Your task to perform on an android device: open app "The Home Depot" (install if not already installed) Image 0: 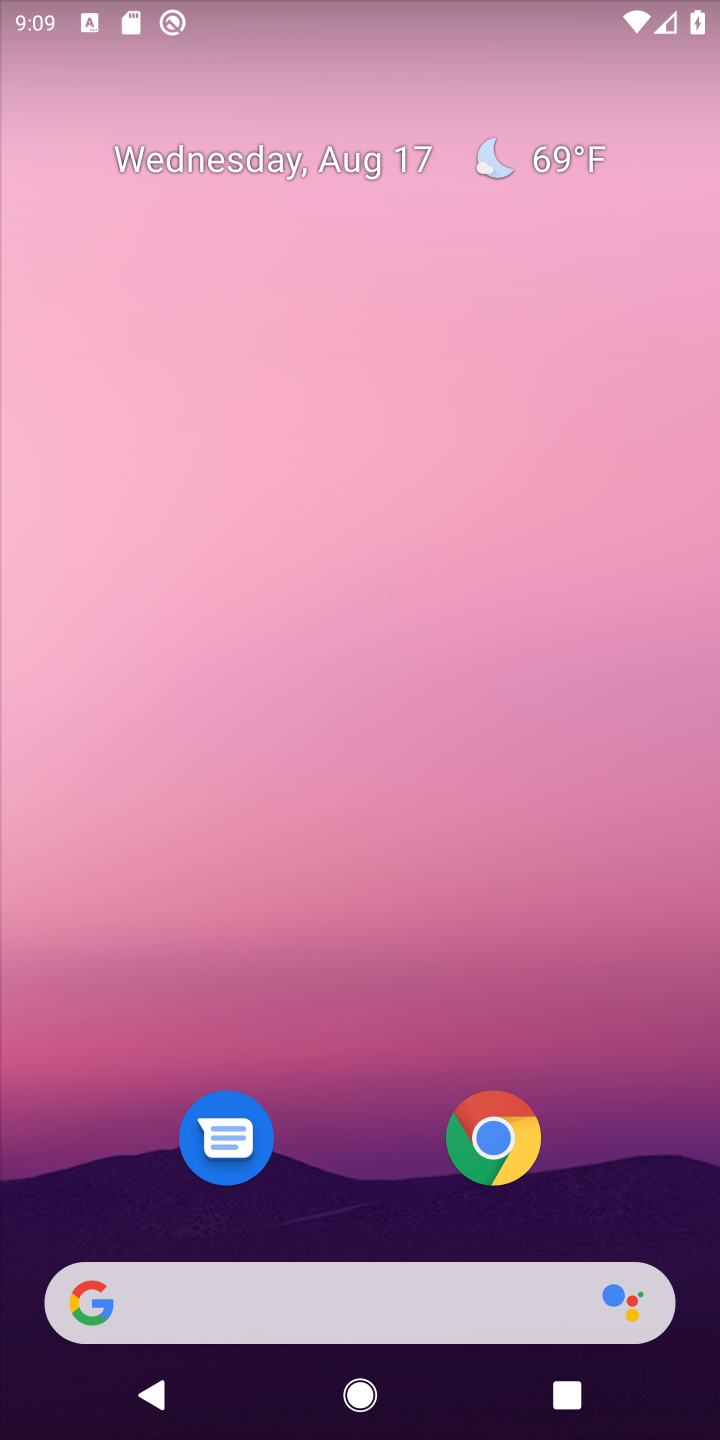
Step 0: drag from (314, 982) to (332, 430)
Your task to perform on an android device: open app "The Home Depot" (install if not already installed) Image 1: 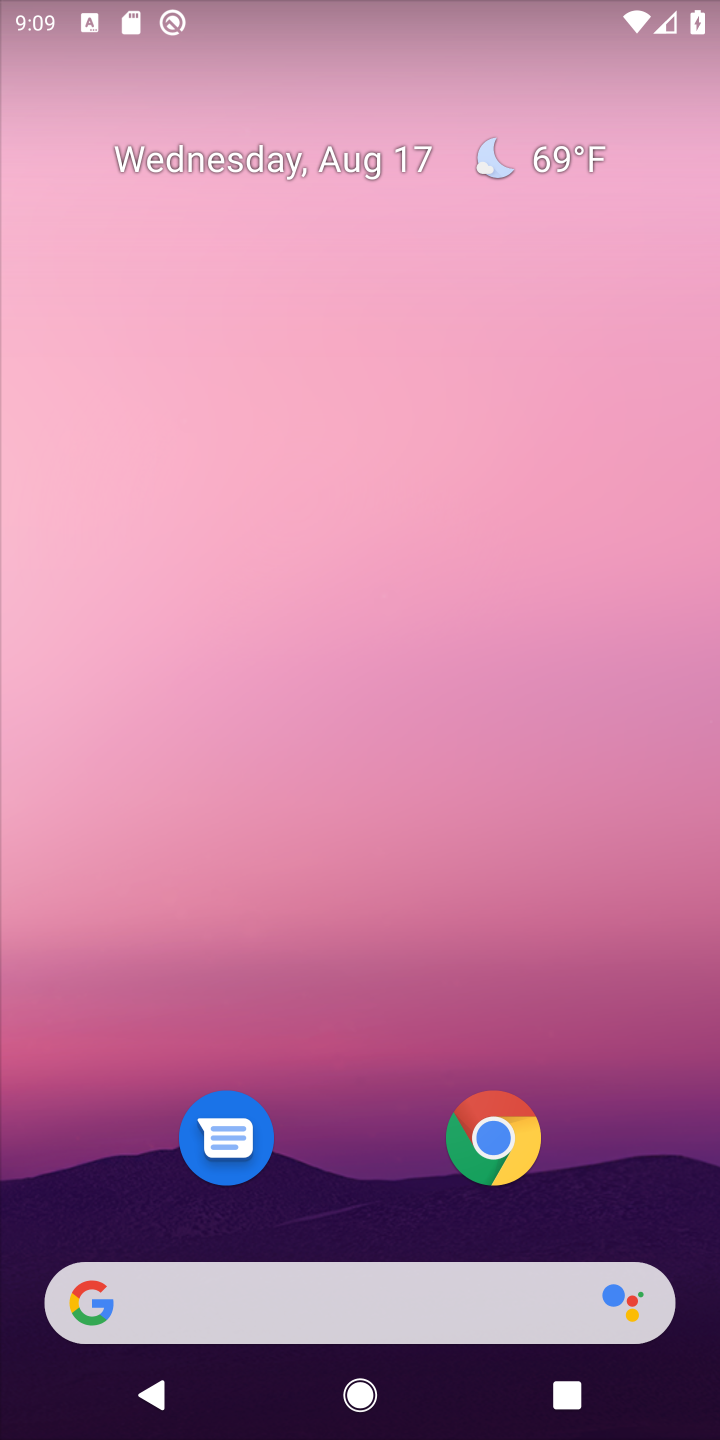
Step 1: drag from (289, 1198) to (291, 308)
Your task to perform on an android device: open app "The Home Depot" (install if not already installed) Image 2: 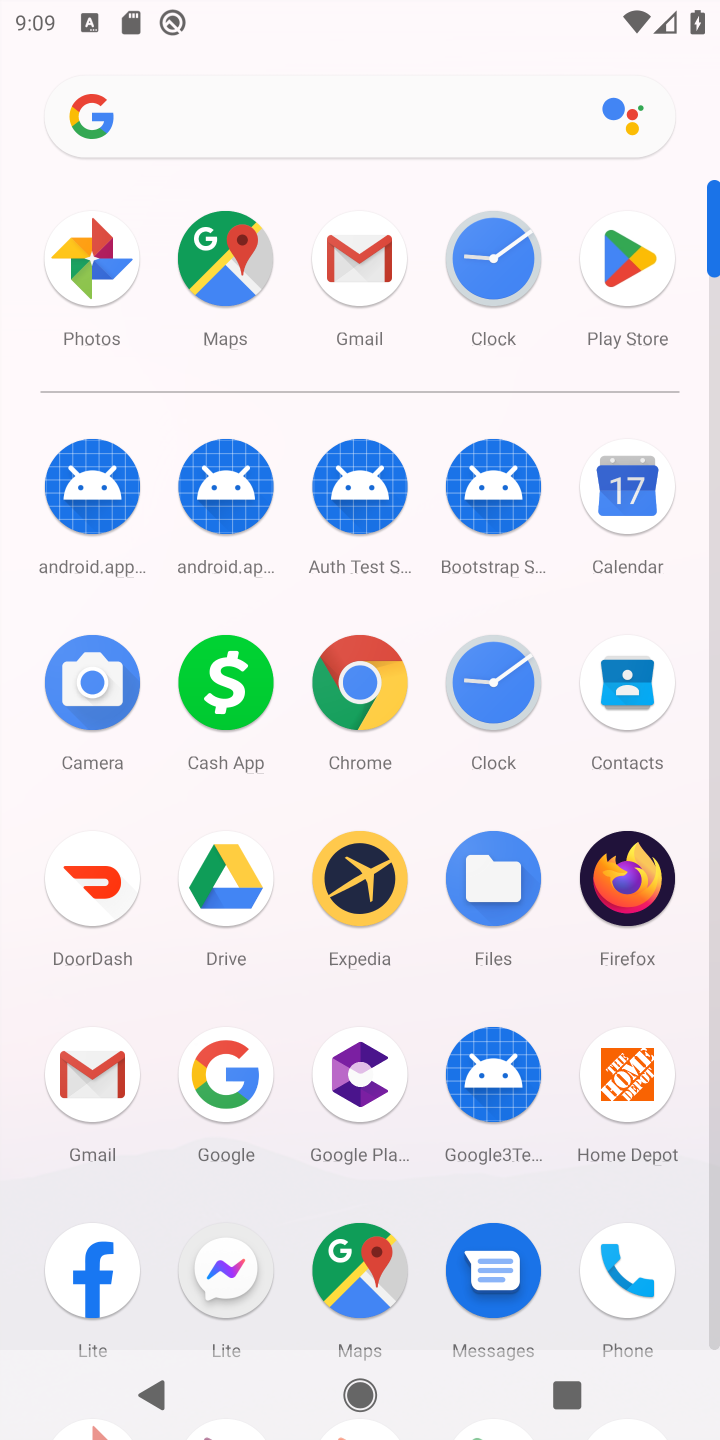
Step 2: click (615, 271)
Your task to perform on an android device: open app "The Home Depot" (install if not already installed) Image 3: 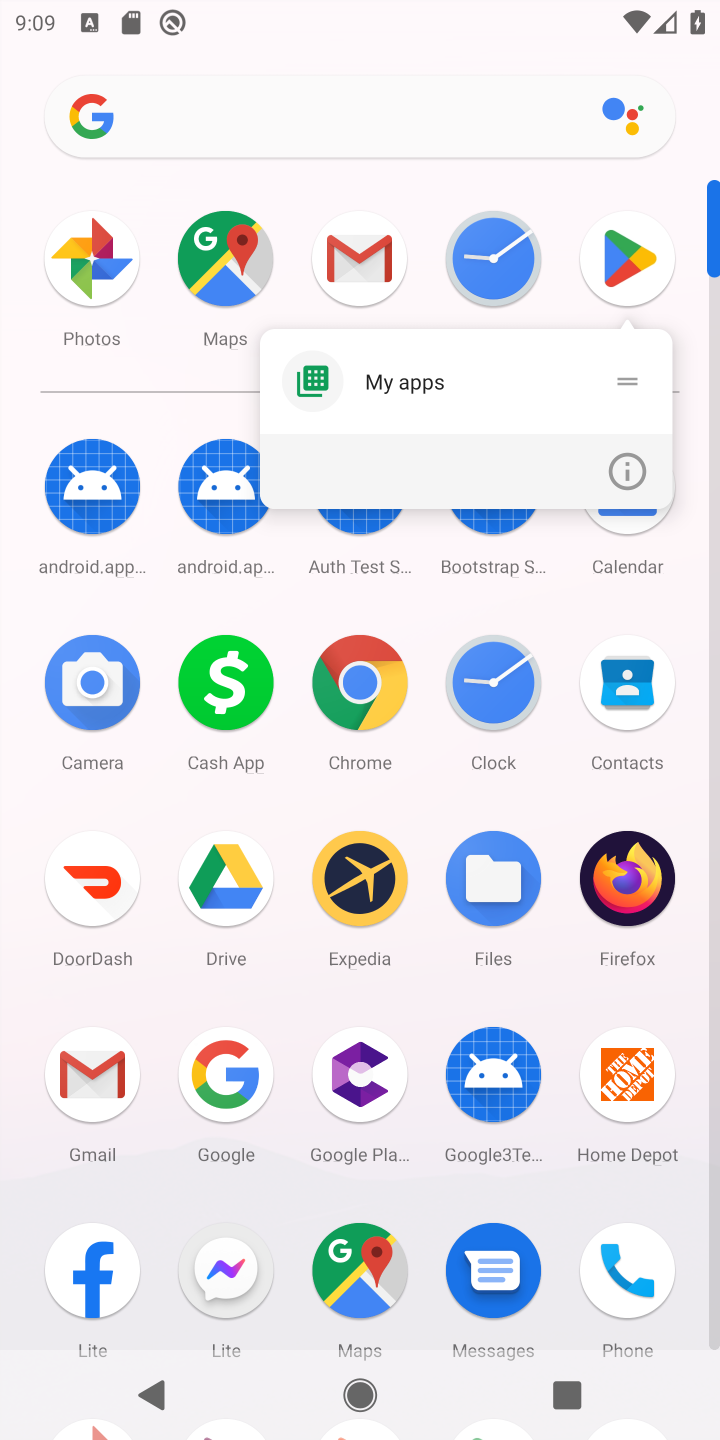
Step 3: click (607, 275)
Your task to perform on an android device: open app "The Home Depot" (install if not already installed) Image 4: 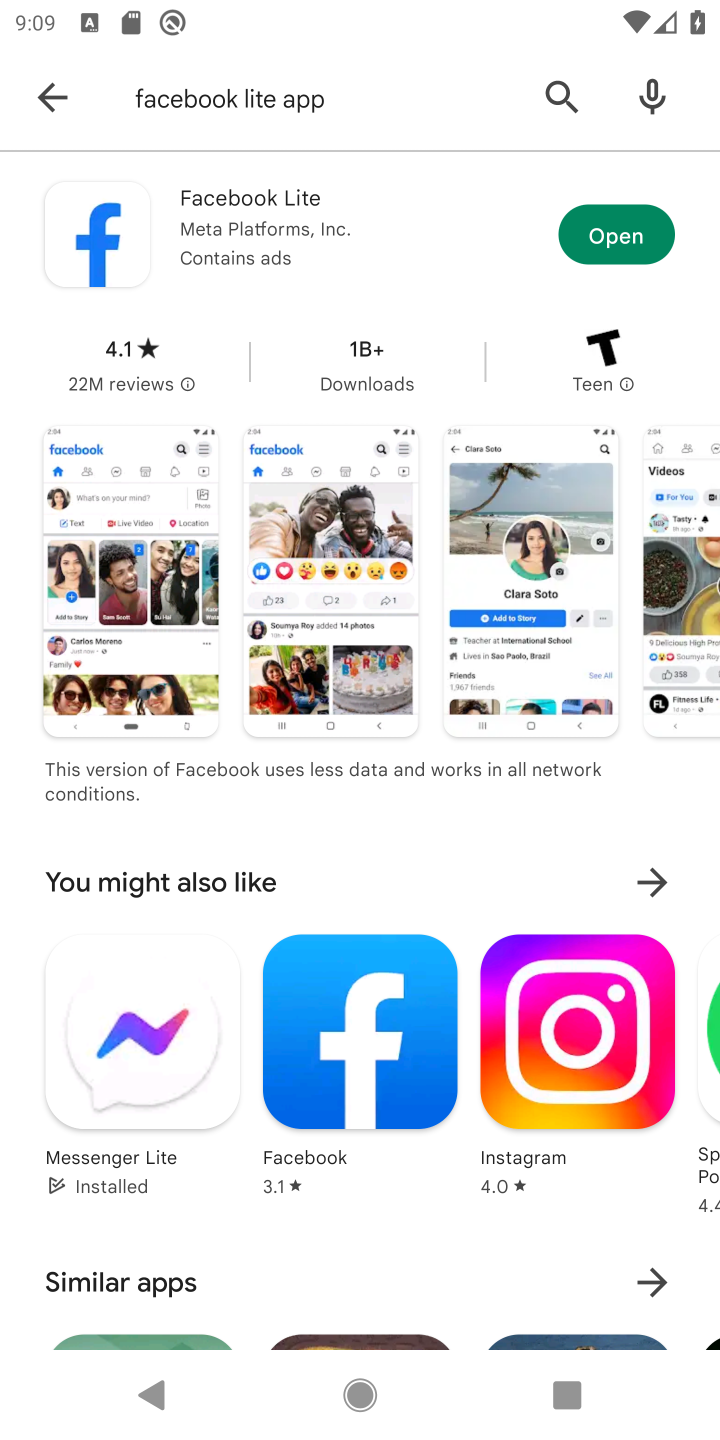
Step 4: click (60, 98)
Your task to perform on an android device: open app "The Home Depot" (install if not already installed) Image 5: 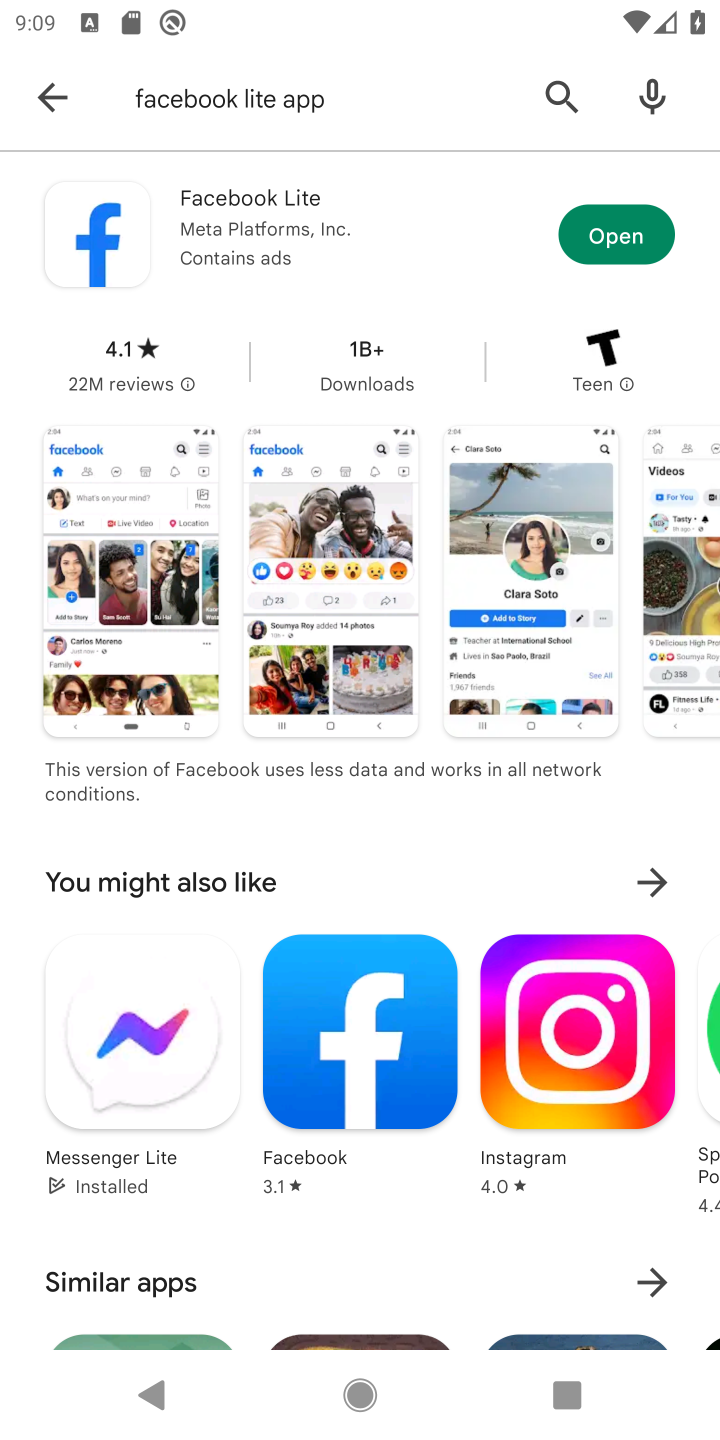
Step 5: click (28, 83)
Your task to perform on an android device: open app "The Home Depot" (install if not already installed) Image 6: 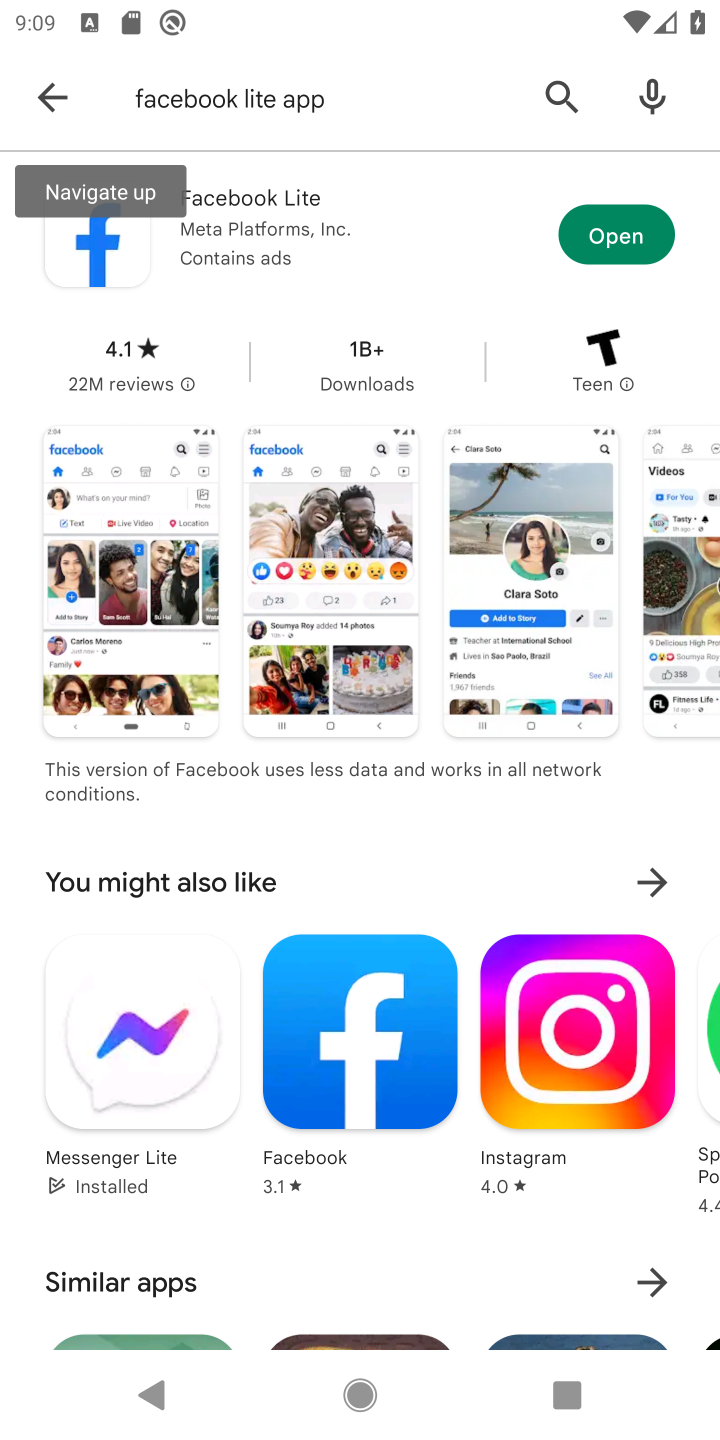
Step 6: click (53, 87)
Your task to perform on an android device: open app "The Home Depot" (install if not already installed) Image 7: 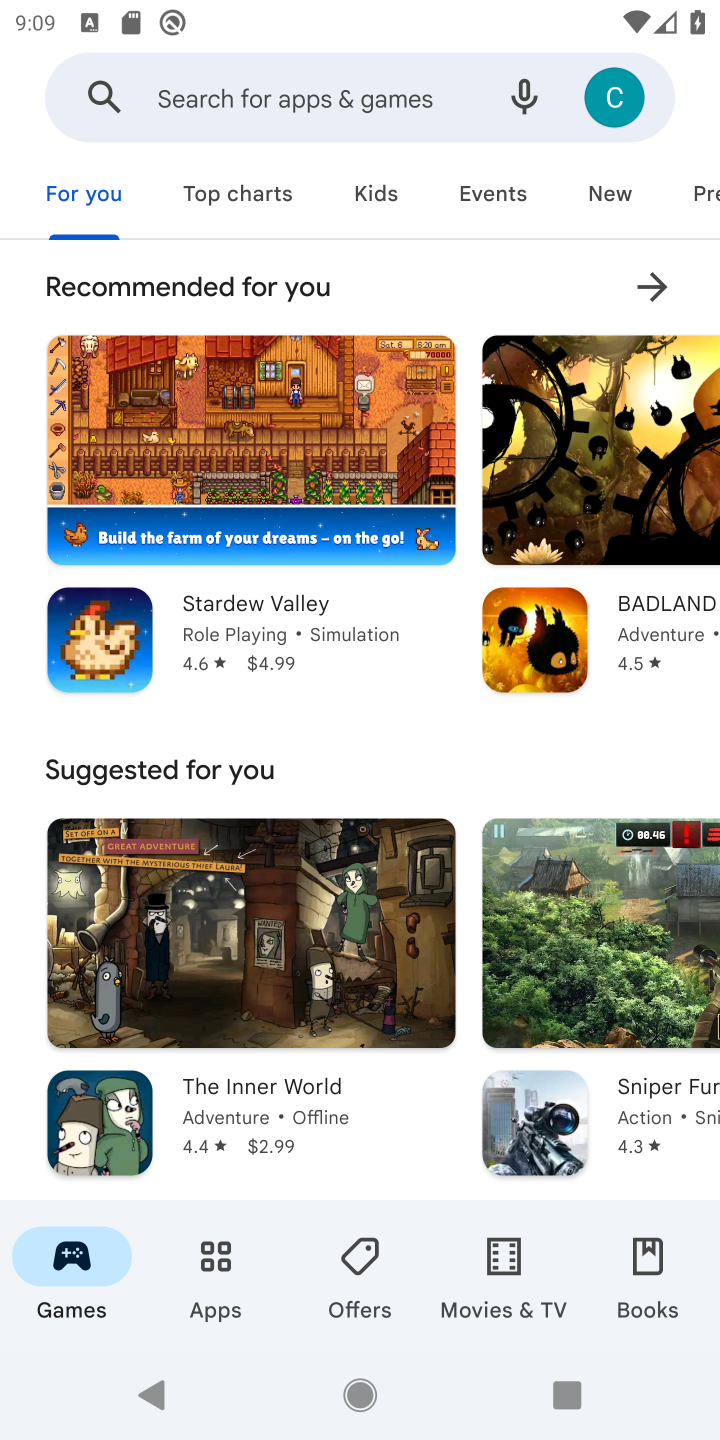
Step 7: click (278, 81)
Your task to perform on an android device: open app "The Home Depot" (install if not already installed) Image 8: 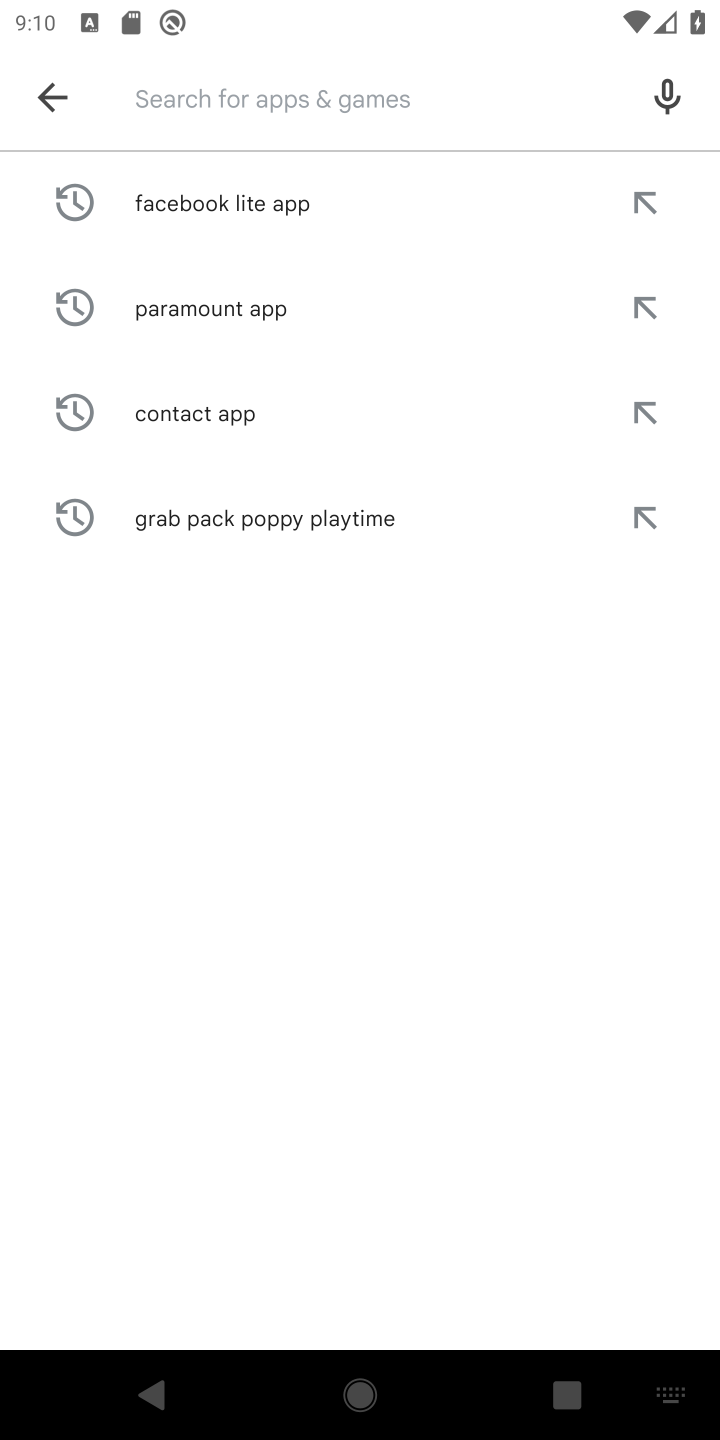
Step 8: click (322, 90)
Your task to perform on an android device: open app "The Home Depot" (install if not already installed) Image 9: 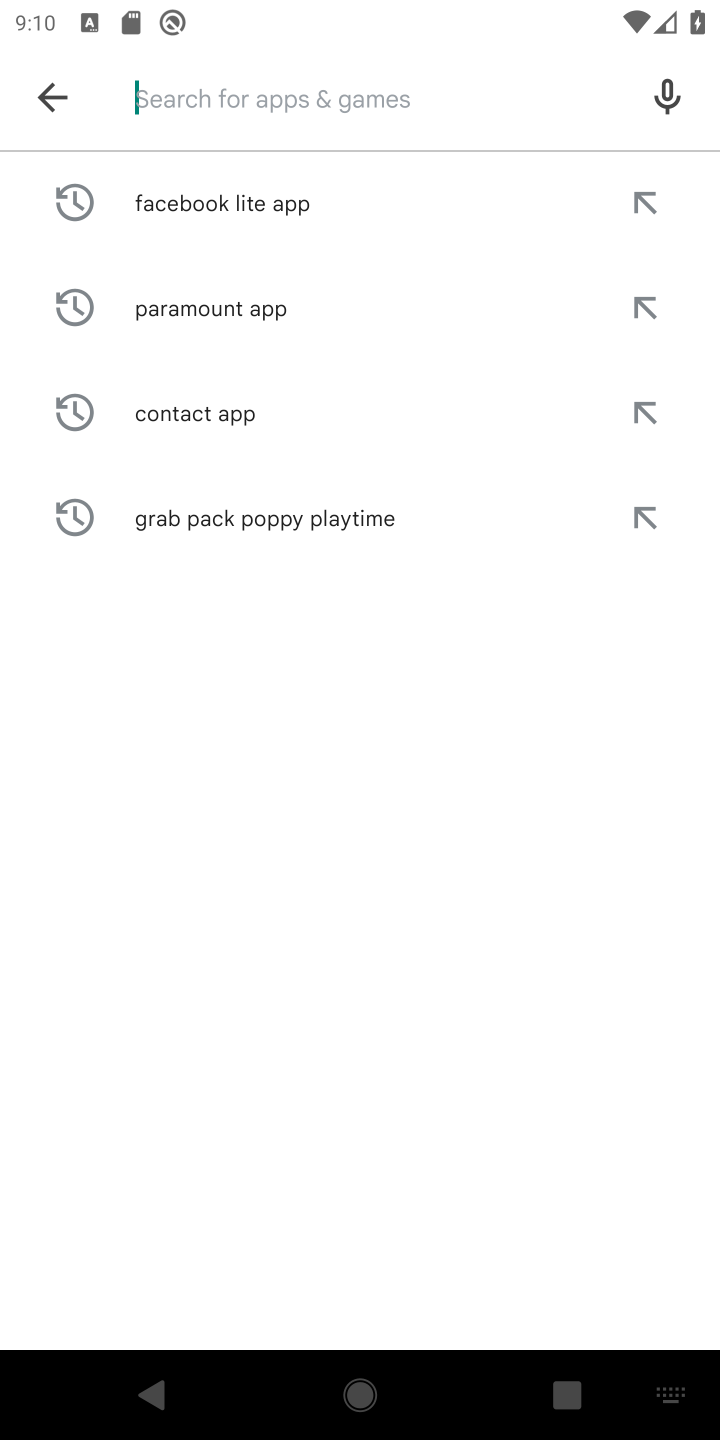
Step 9: type "The Home Depot "
Your task to perform on an android device: open app "The Home Depot" (install if not already installed) Image 10: 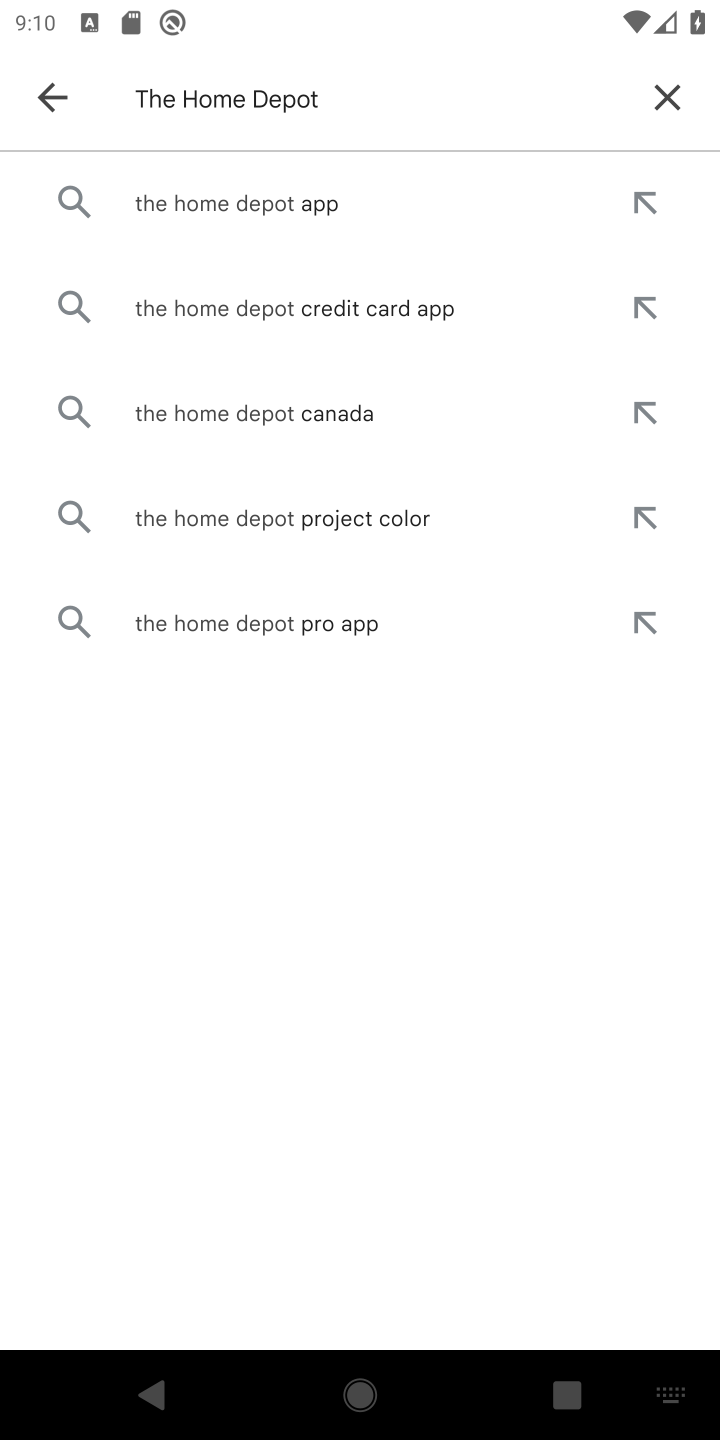
Step 10: click (304, 195)
Your task to perform on an android device: open app "The Home Depot" (install if not already installed) Image 11: 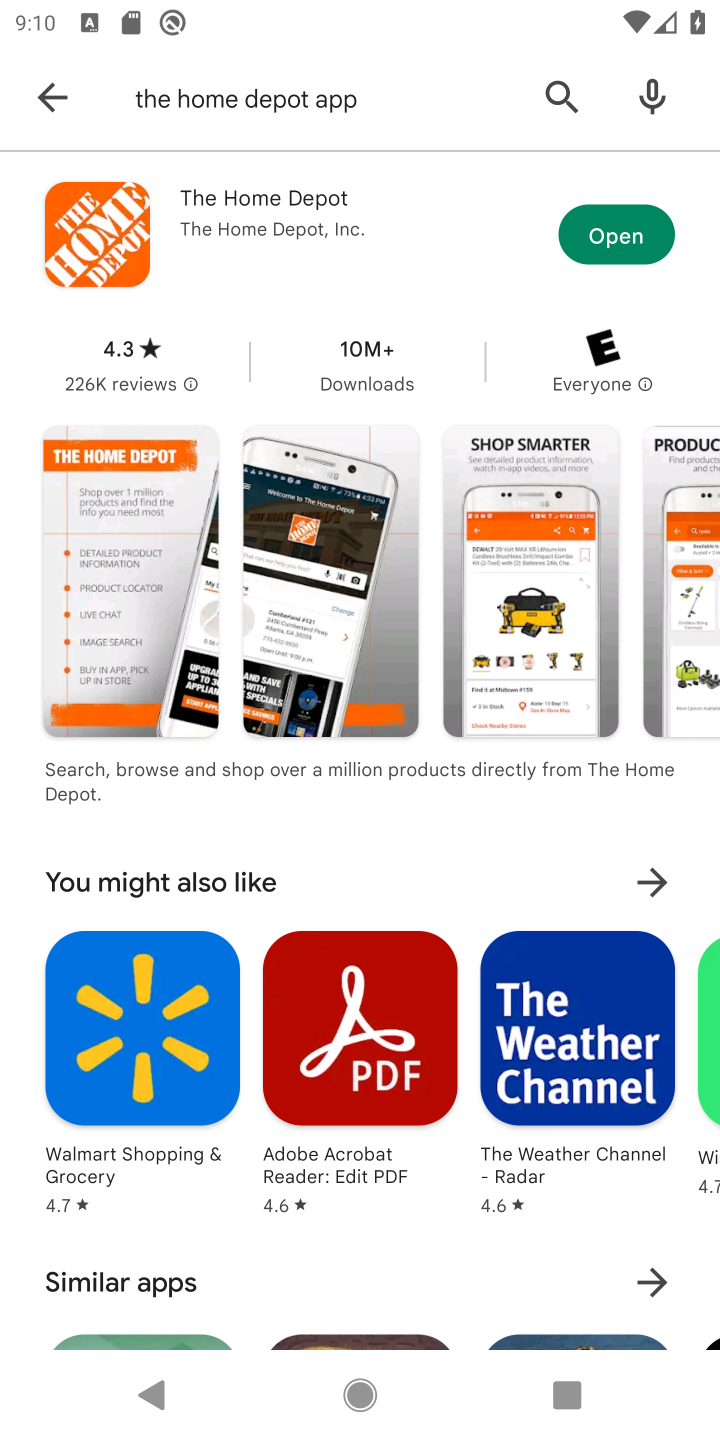
Step 11: click (641, 231)
Your task to perform on an android device: open app "The Home Depot" (install if not already installed) Image 12: 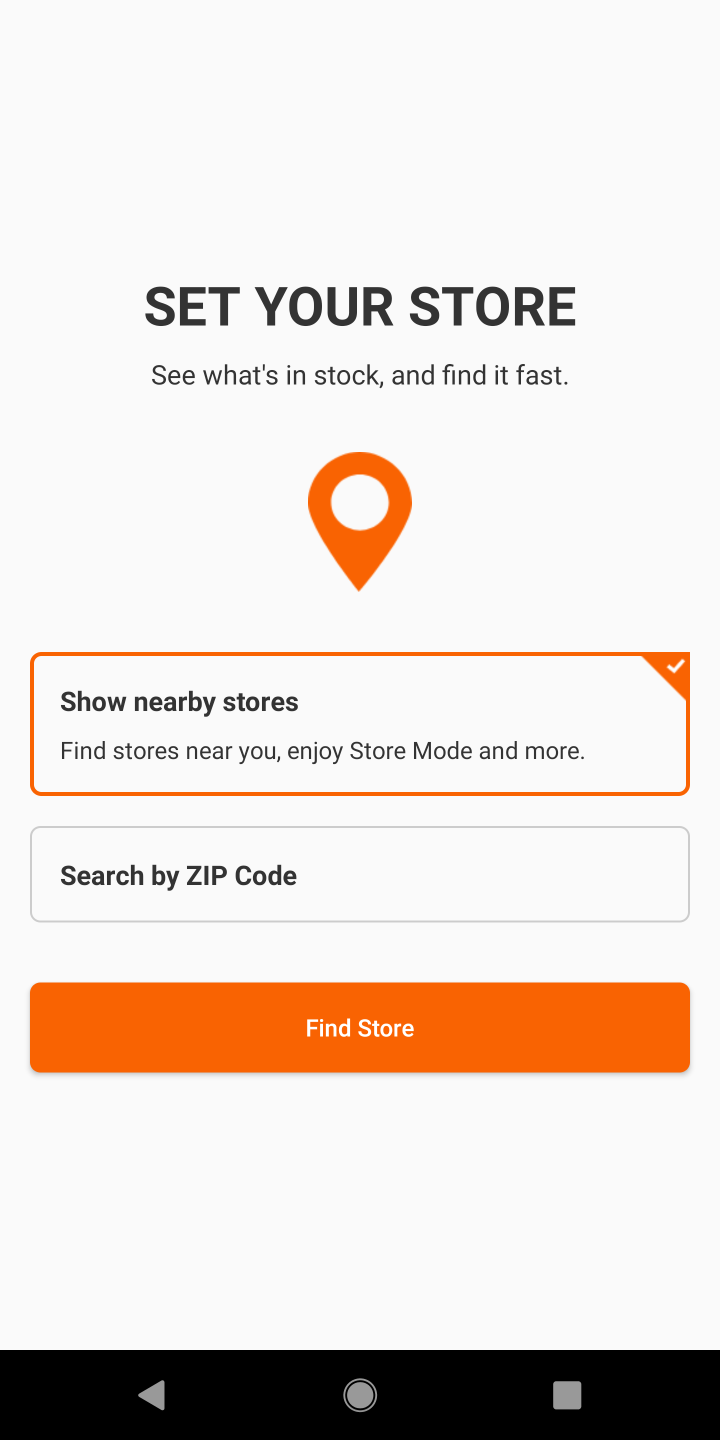
Step 12: task complete